Your task to perform on an android device: Check the news Image 0: 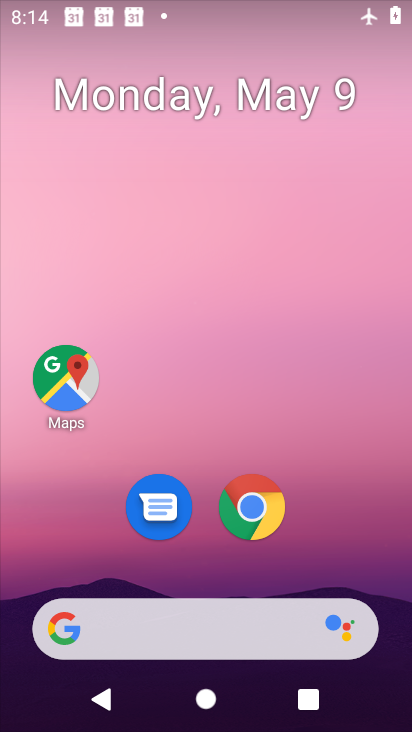
Step 0: drag from (28, 238) to (411, 237)
Your task to perform on an android device: Check the news Image 1: 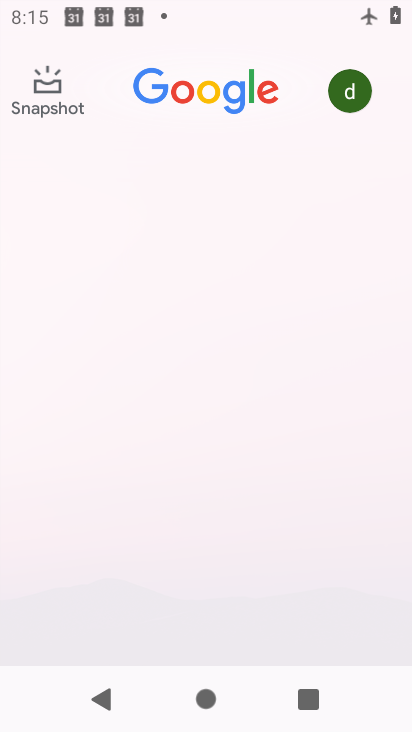
Step 1: task complete